Your task to perform on an android device: turn on notifications settings in the gmail app Image 0: 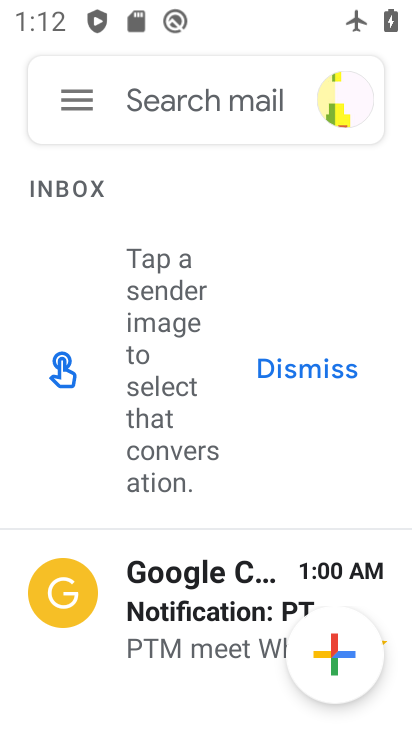
Step 0: click (68, 108)
Your task to perform on an android device: turn on notifications settings in the gmail app Image 1: 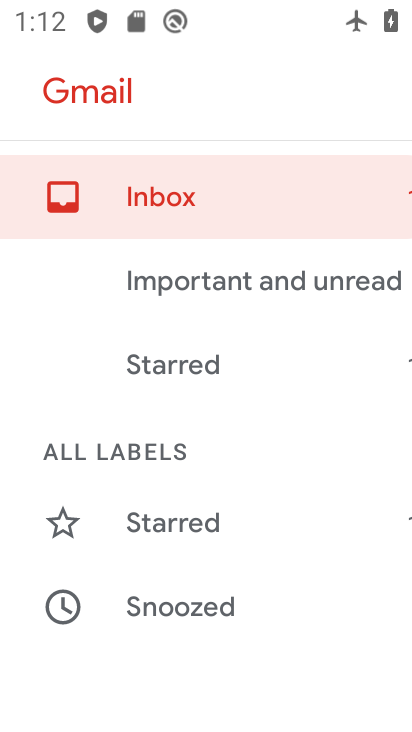
Step 1: drag from (212, 465) to (254, 115)
Your task to perform on an android device: turn on notifications settings in the gmail app Image 2: 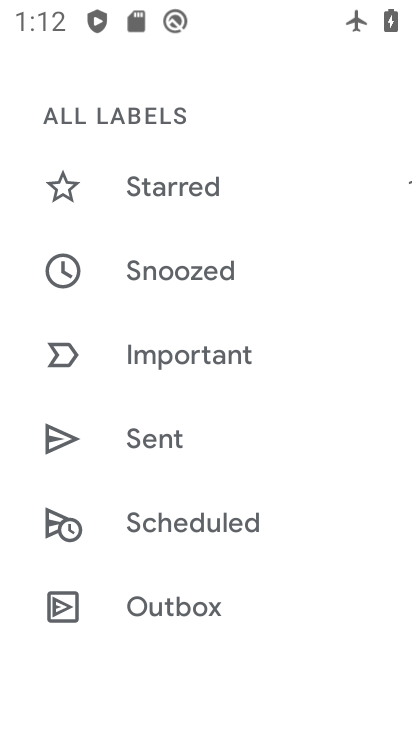
Step 2: drag from (214, 564) to (275, 93)
Your task to perform on an android device: turn on notifications settings in the gmail app Image 3: 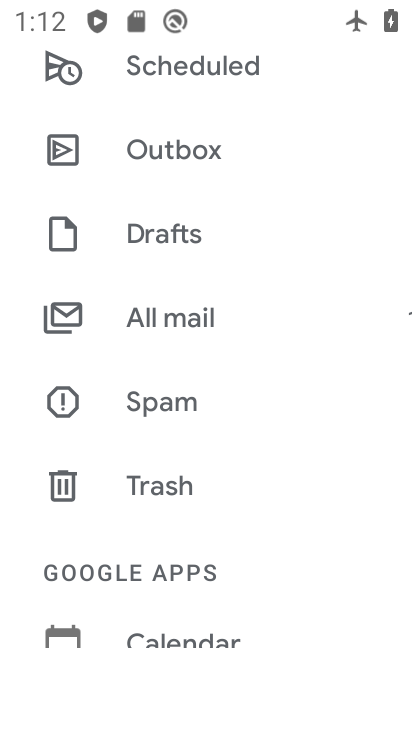
Step 3: drag from (197, 545) to (260, 120)
Your task to perform on an android device: turn on notifications settings in the gmail app Image 4: 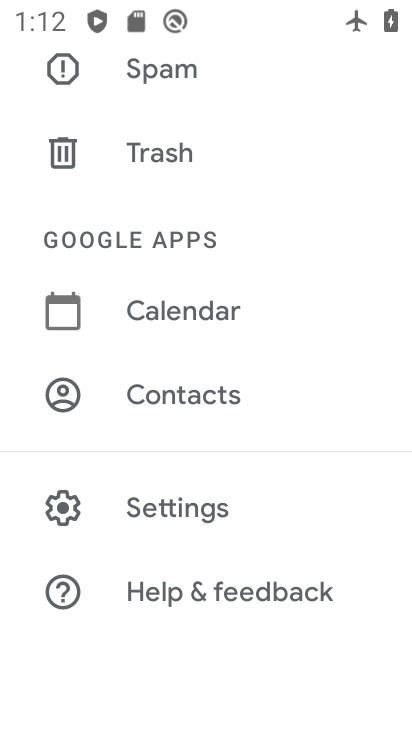
Step 4: click (181, 508)
Your task to perform on an android device: turn on notifications settings in the gmail app Image 5: 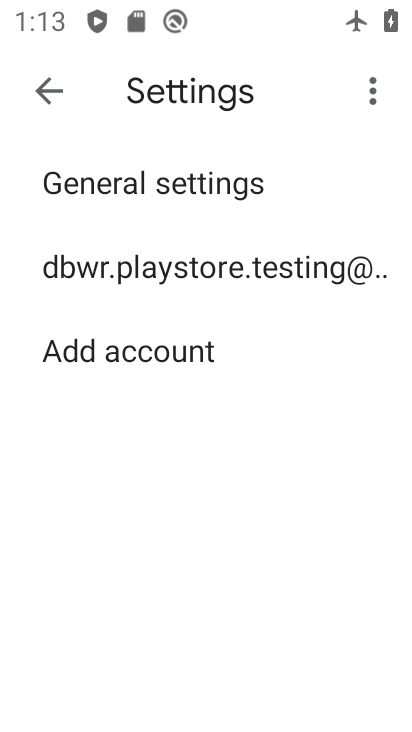
Step 5: click (168, 280)
Your task to perform on an android device: turn on notifications settings in the gmail app Image 6: 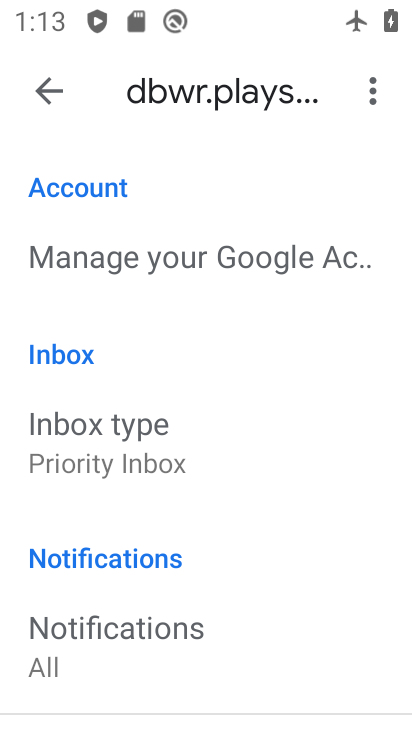
Step 6: drag from (215, 618) to (260, 250)
Your task to perform on an android device: turn on notifications settings in the gmail app Image 7: 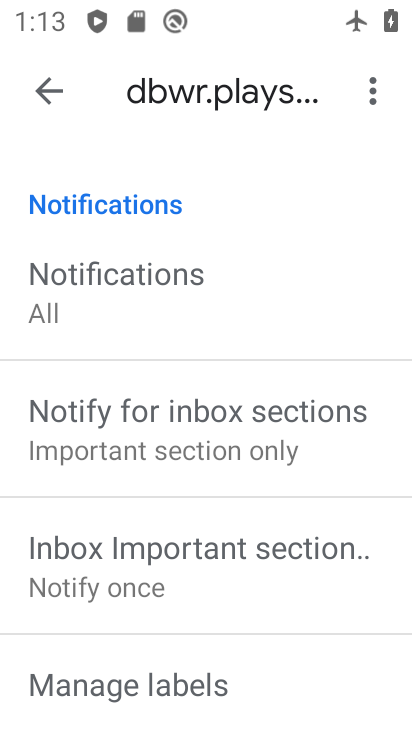
Step 7: click (126, 303)
Your task to perform on an android device: turn on notifications settings in the gmail app Image 8: 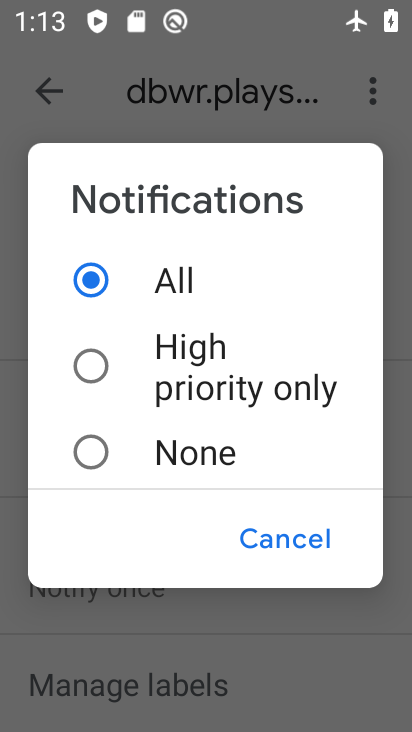
Step 8: task complete